Your task to perform on an android device: Go to location settings Image 0: 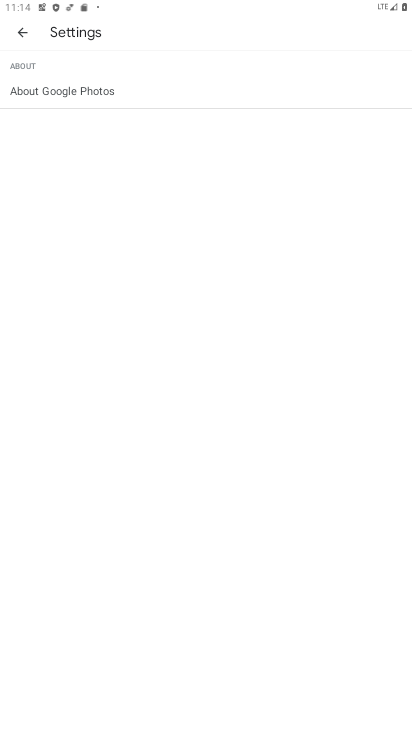
Step 0: click (20, 32)
Your task to perform on an android device: Go to location settings Image 1: 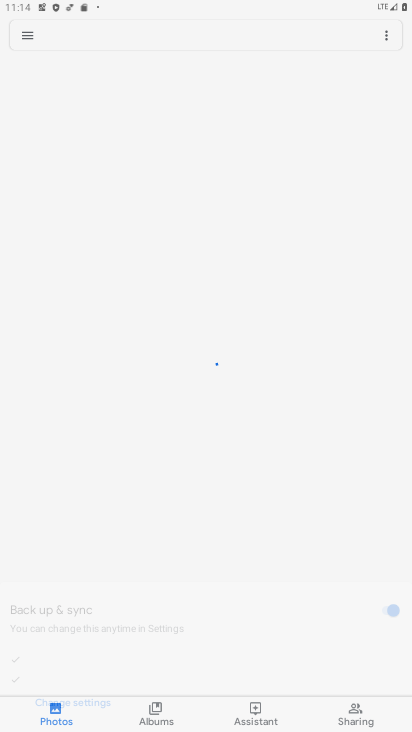
Step 1: press back button
Your task to perform on an android device: Go to location settings Image 2: 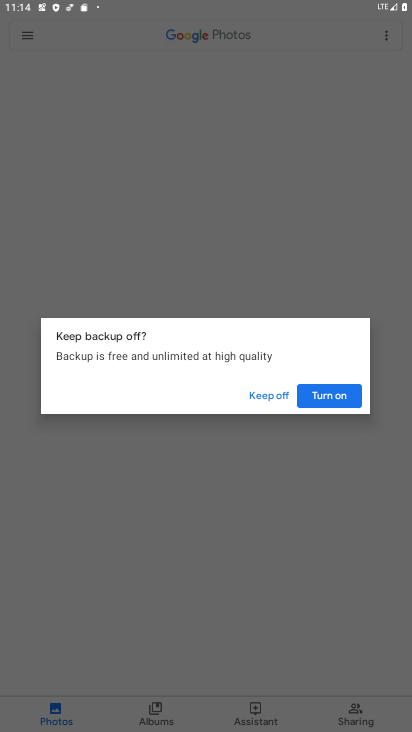
Step 2: press home button
Your task to perform on an android device: Go to location settings Image 3: 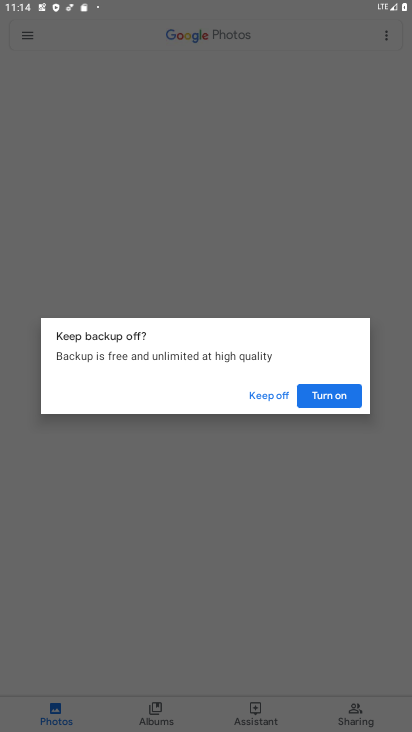
Step 3: click (255, 401)
Your task to perform on an android device: Go to location settings Image 4: 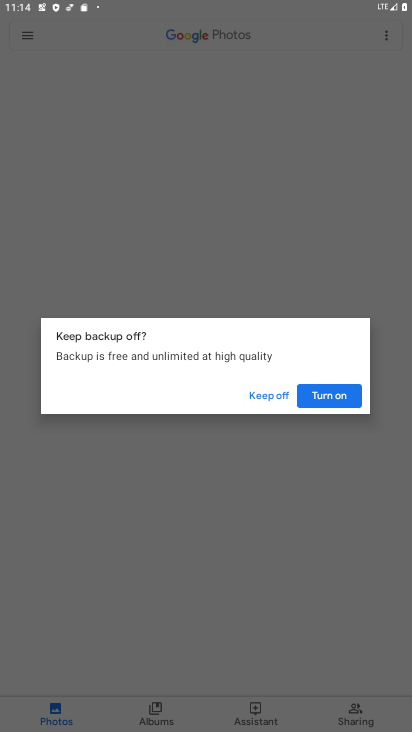
Step 4: press home button
Your task to perform on an android device: Go to location settings Image 5: 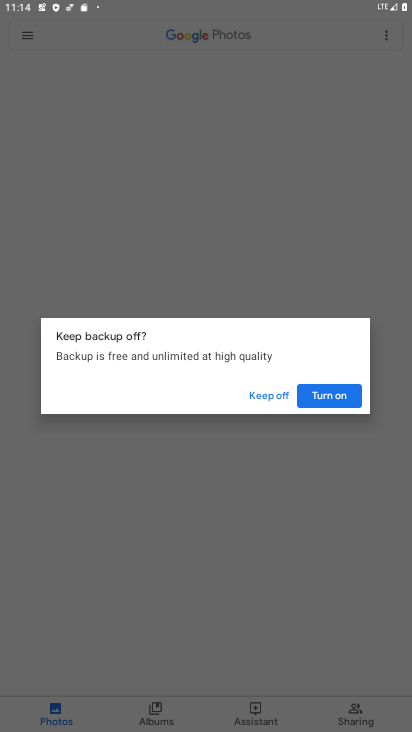
Step 5: click (255, 401)
Your task to perform on an android device: Go to location settings Image 6: 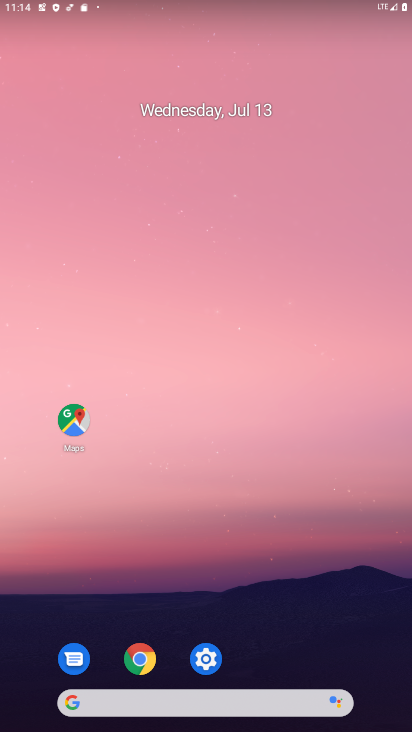
Step 6: drag from (245, 310) to (222, 157)
Your task to perform on an android device: Go to location settings Image 7: 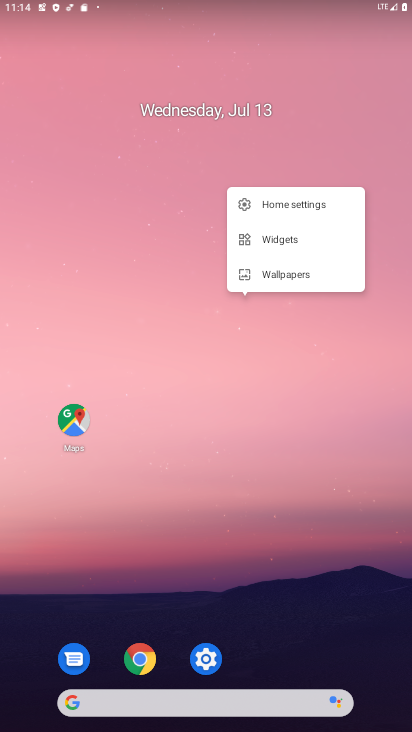
Step 7: drag from (201, 136) to (194, 103)
Your task to perform on an android device: Go to location settings Image 8: 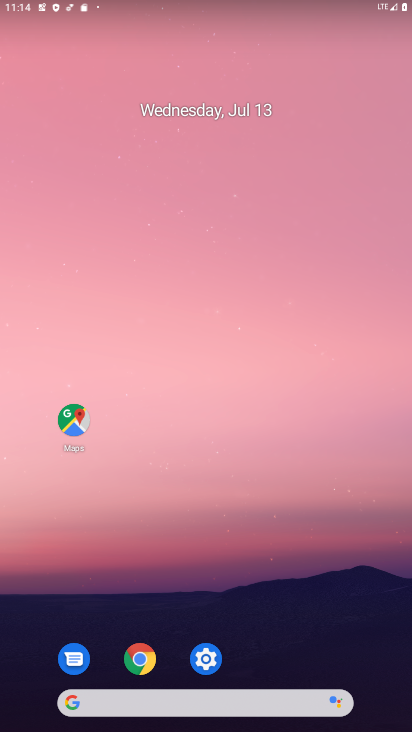
Step 8: drag from (191, 696) to (223, 183)
Your task to perform on an android device: Go to location settings Image 9: 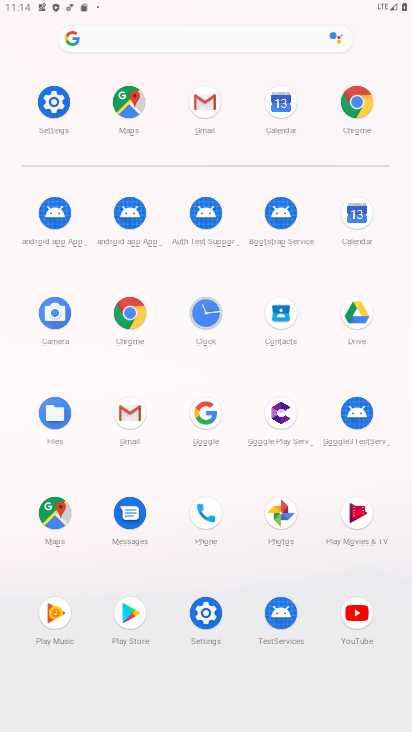
Step 9: click (211, 616)
Your task to perform on an android device: Go to location settings Image 10: 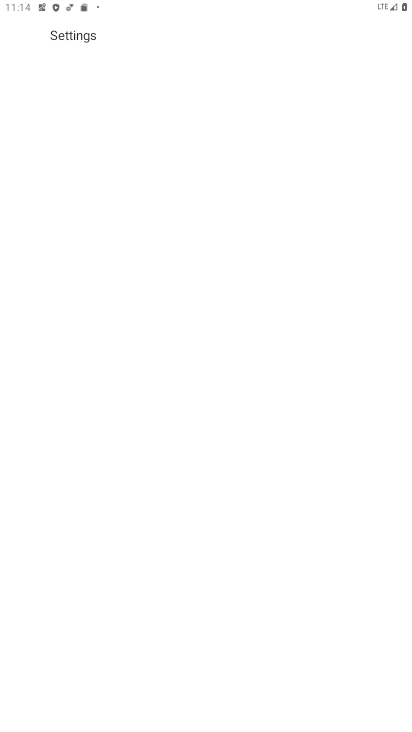
Step 10: click (211, 616)
Your task to perform on an android device: Go to location settings Image 11: 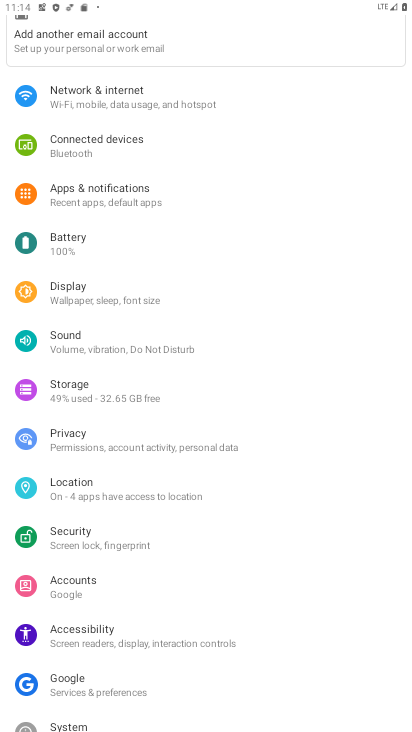
Step 11: click (93, 494)
Your task to perform on an android device: Go to location settings Image 12: 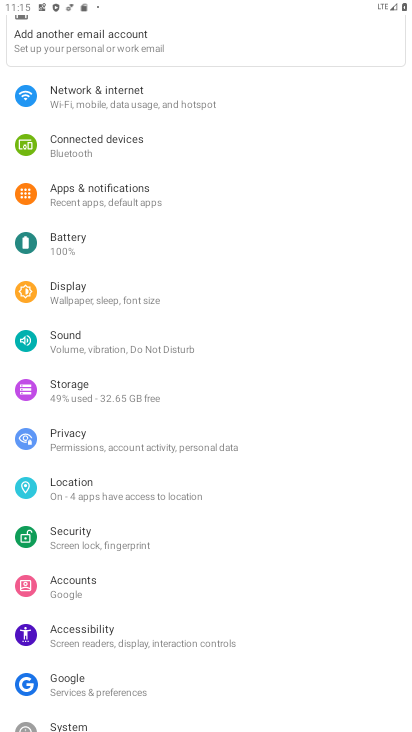
Step 12: click (84, 489)
Your task to perform on an android device: Go to location settings Image 13: 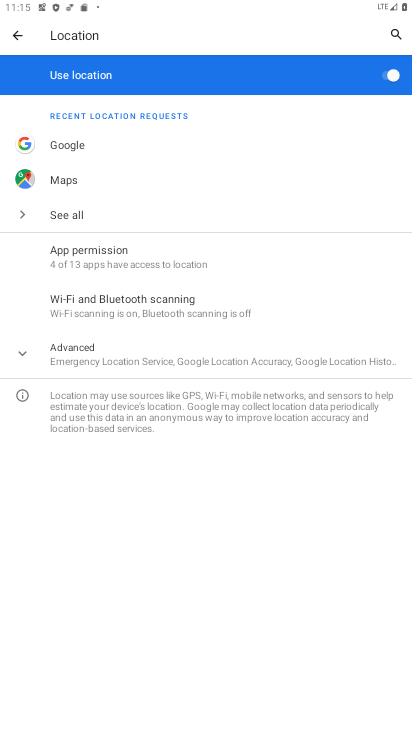
Step 13: click (96, 357)
Your task to perform on an android device: Go to location settings Image 14: 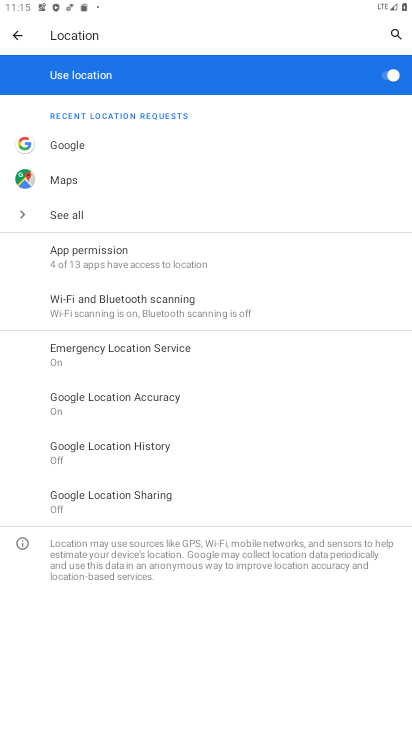
Step 14: drag from (252, 393) to (234, 85)
Your task to perform on an android device: Go to location settings Image 15: 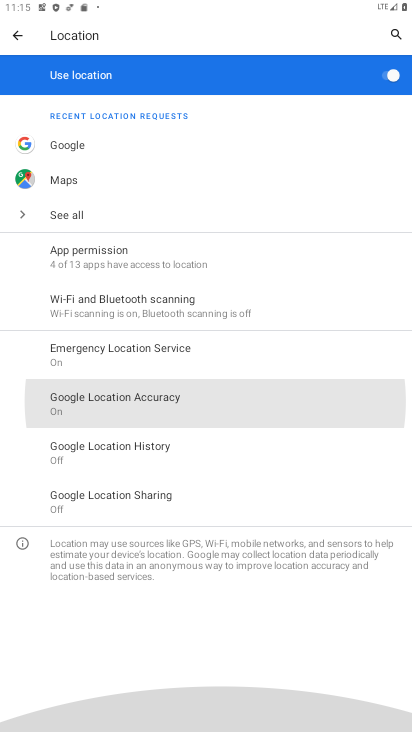
Step 15: drag from (229, 352) to (203, 115)
Your task to perform on an android device: Go to location settings Image 16: 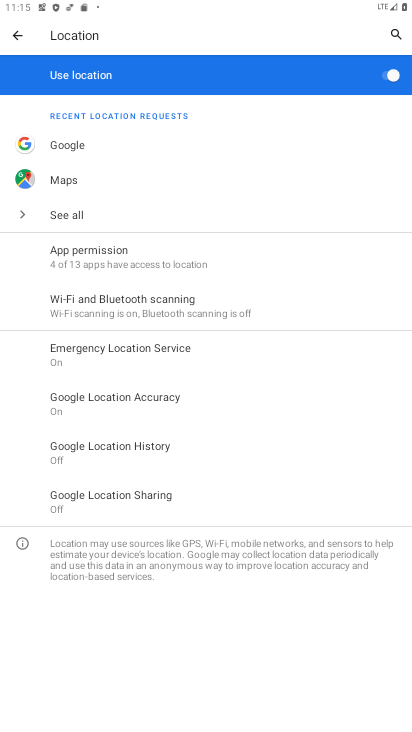
Step 16: drag from (242, 476) to (184, 177)
Your task to perform on an android device: Go to location settings Image 17: 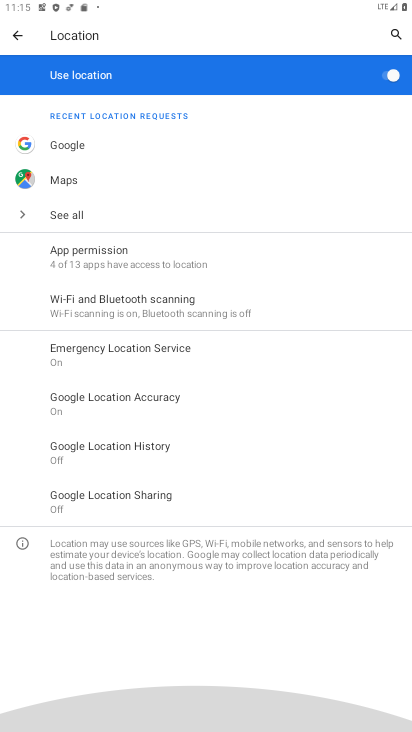
Step 17: drag from (255, 462) to (203, 114)
Your task to perform on an android device: Go to location settings Image 18: 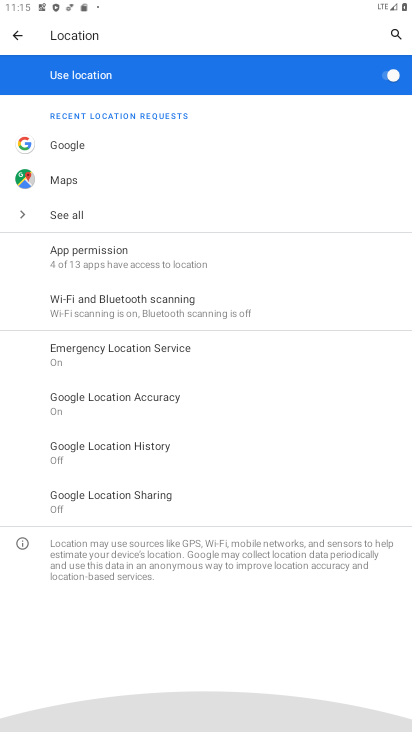
Step 18: drag from (206, 455) to (206, 76)
Your task to perform on an android device: Go to location settings Image 19: 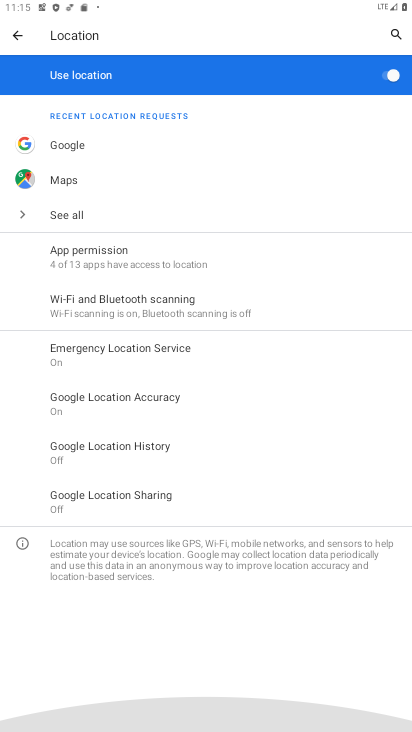
Step 19: drag from (256, 398) to (252, 146)
Your task to perform on an android device: Go to location settings Image 20: 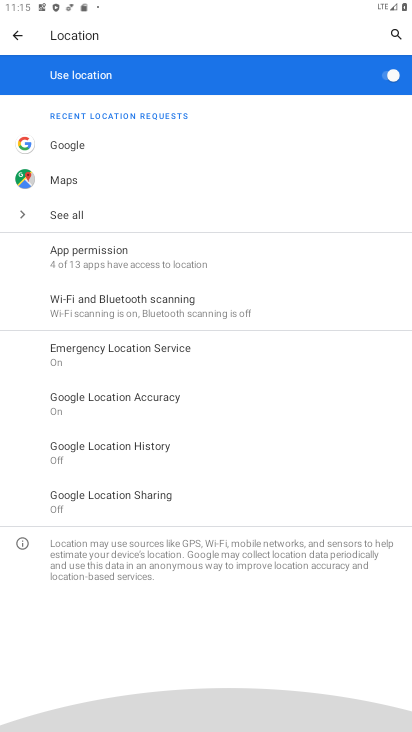
Step 20: drag from (232, 318) to (214, 33)
Your task to perform on an android device: Go to location settings Image 21: 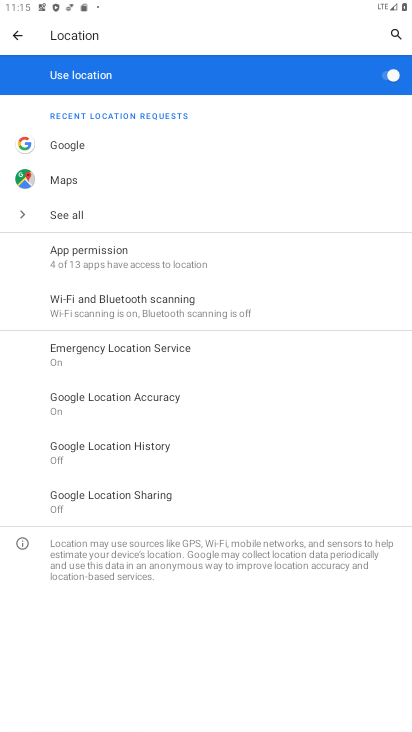
Step 21: drag from (239, 548) to (239, 22)
Your task to perform on an android device: Go to location settings Image 22: 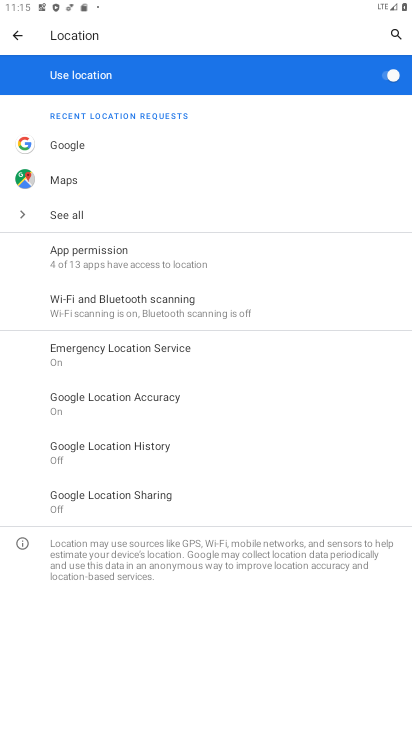
Step 22: click (198, 103)
Your task to perform on an android device: Go to location settings Image 23: 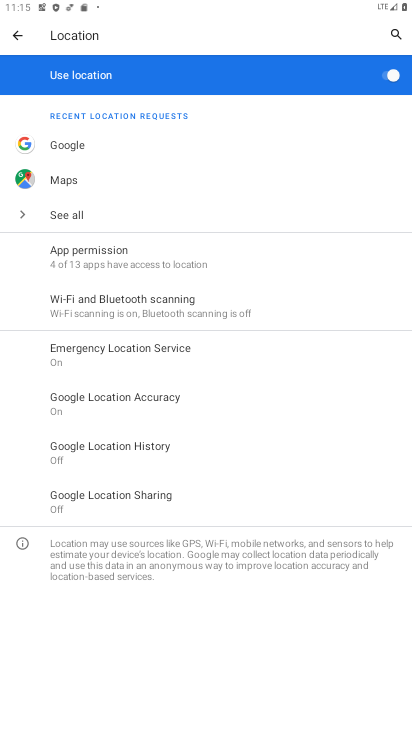
Step 23: drag from (251, 3) to (212, 107)
Your task to perform on an android device: Go to location settings Image 24: 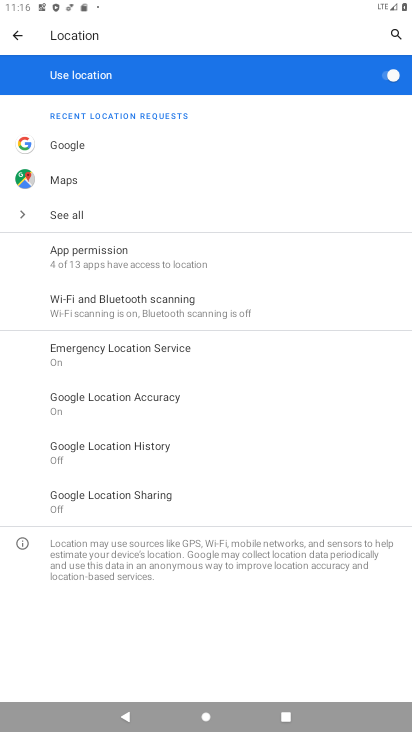
Step 24: click (220, 432)
Your task to perform on an android device: Go to location settings Image 25: 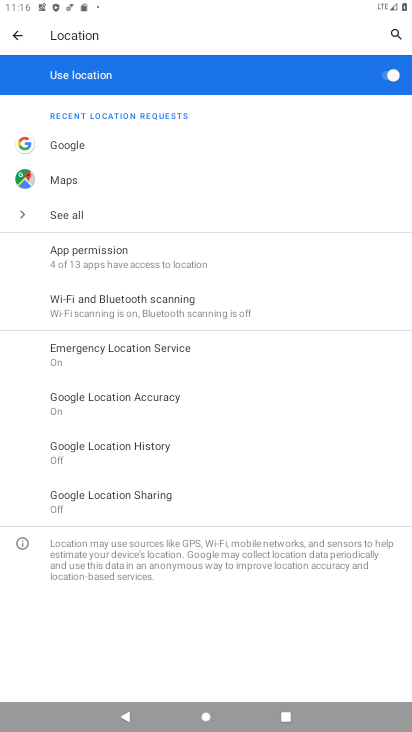
Step 25: click (220, 432)
Your task to perform on an android device: Go to location settings Image 26: 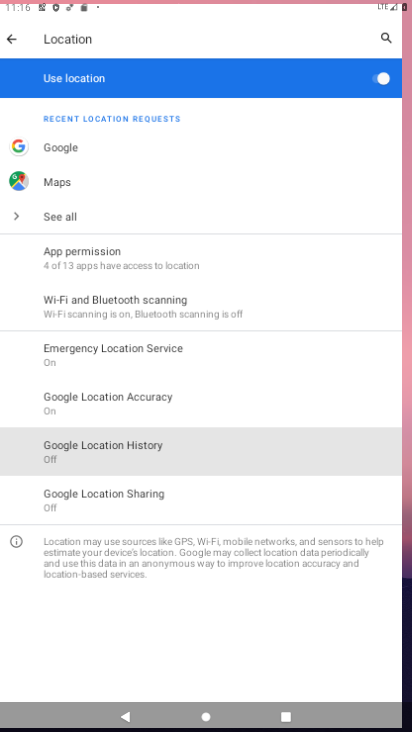
Step 26: click (220, 432)
Your task to perform on an android device: Go to location settings Image 27: 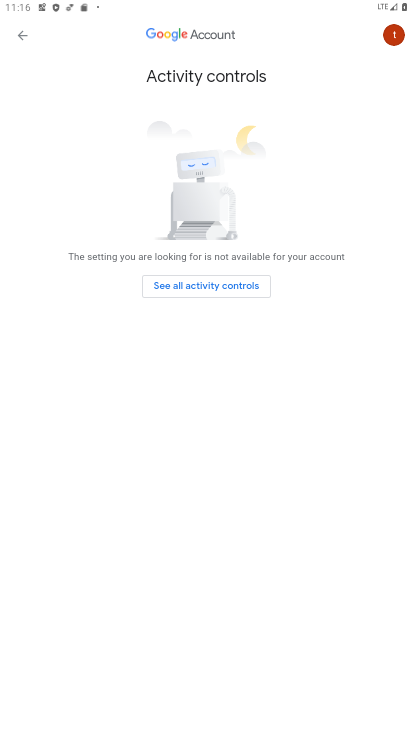
Step 27: click (17, 27)
Your task to perform on an android device: Go to location settings Image 28: 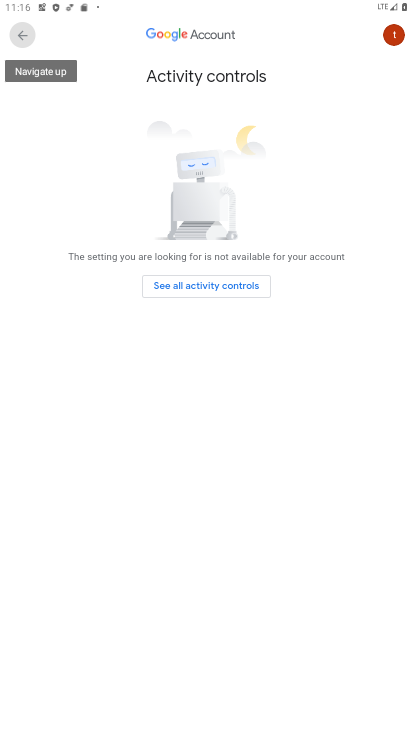
Step 28: click (17, 28)
Your task to perform on an android device: Go to location settings Image 29: 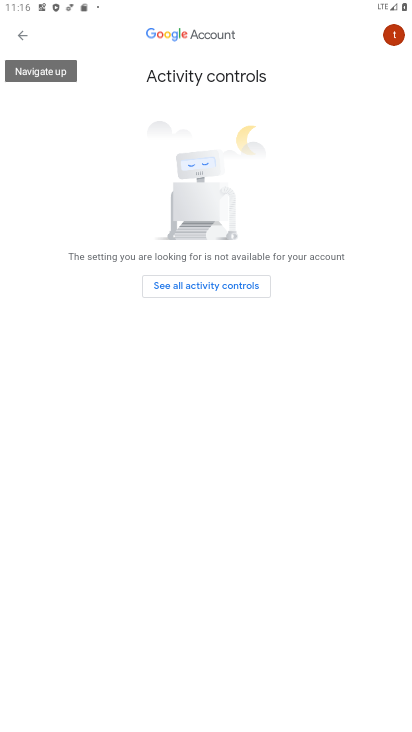
Step 29: click (18, 30)
Your task to perform on an android device: Go to location settings Image 30: 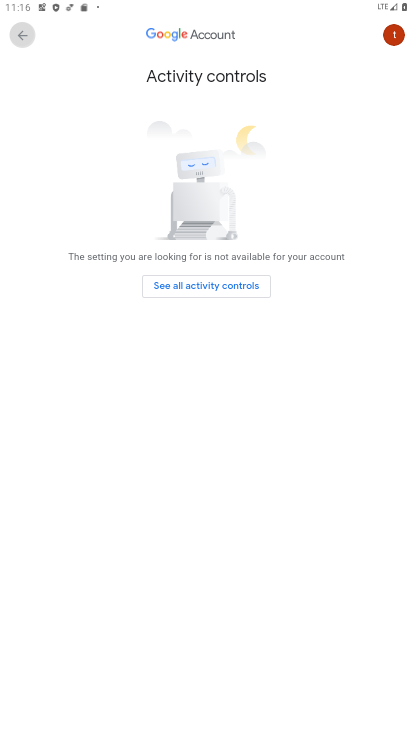
Step 30: click (19, 32)
Your task to perform on an android device: Go to location settings Image 31: 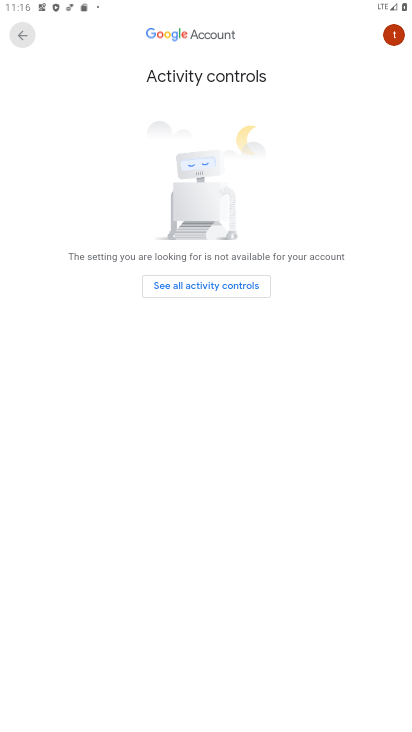
Step 31: click (19, 32)
Your task to perform on an android device: Go to location settings Image 32: 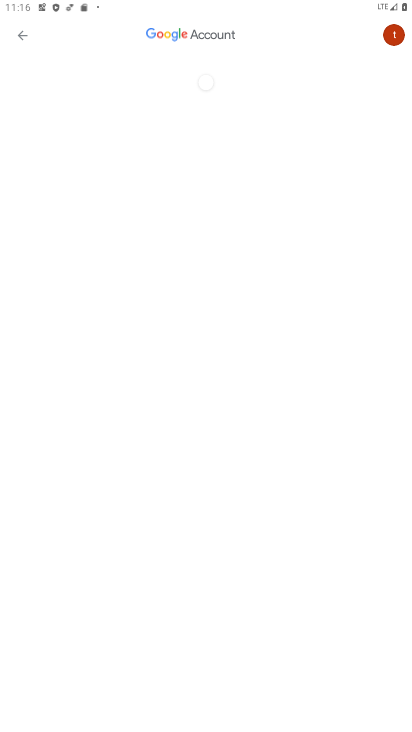
Step 32: click (19, 32)
Your task to perform on an android device: Go to location settings Image 33: 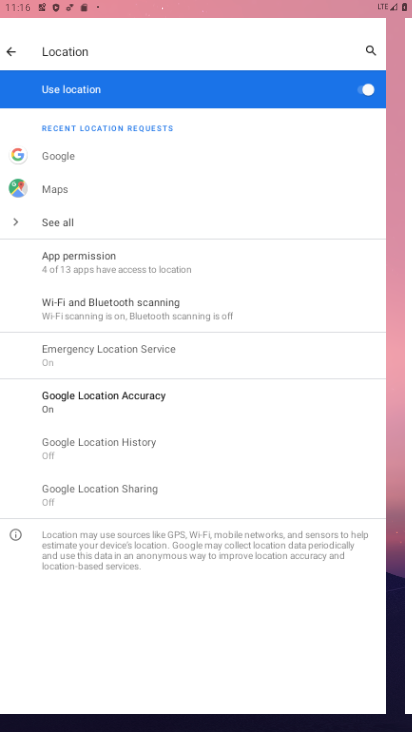
Step 33: click (19, 32)
Your task to perform on an android device: Go to location settings Image 34: 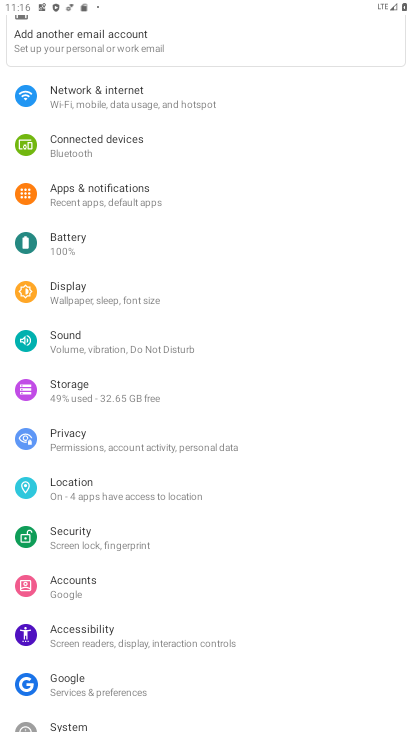
Step 34: click (73, 474)
Your task to perform on an android device: Go to location settings Image 35: 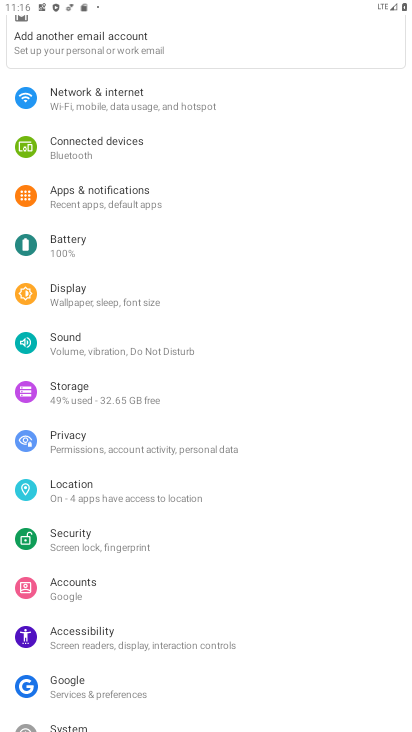
Step 35: click (77, 483)
Your task to perform on an android device: Go to location settings Image 36: 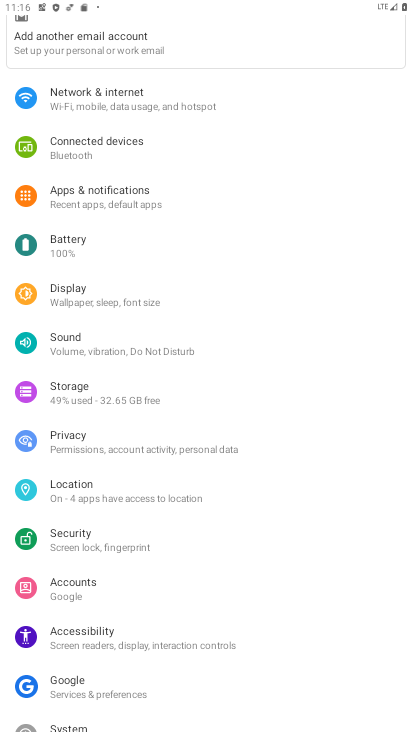
Step 36: click (77, 483)
Your task to perform on an android device: Go to location settings Image 37: 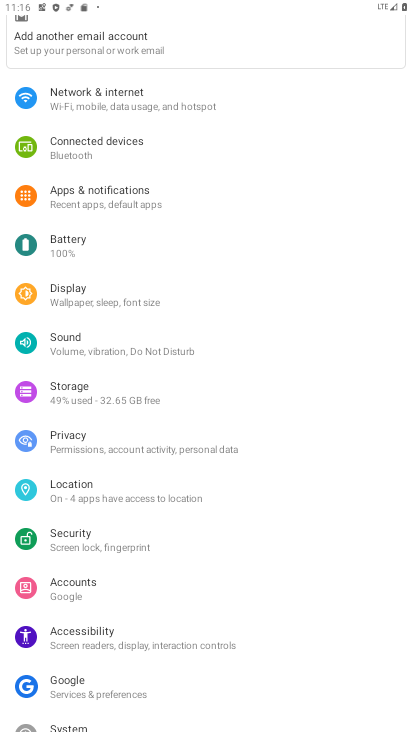
Step 37: click (79, 484)
Your task to perform on an android device: Go to location settings Image 38: 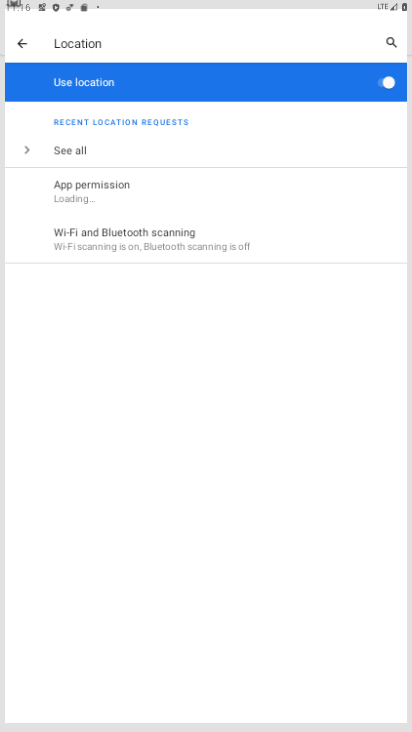
Step 38: click (79, 484)
Your task to perform on an android device: Go to location settings Image 39: 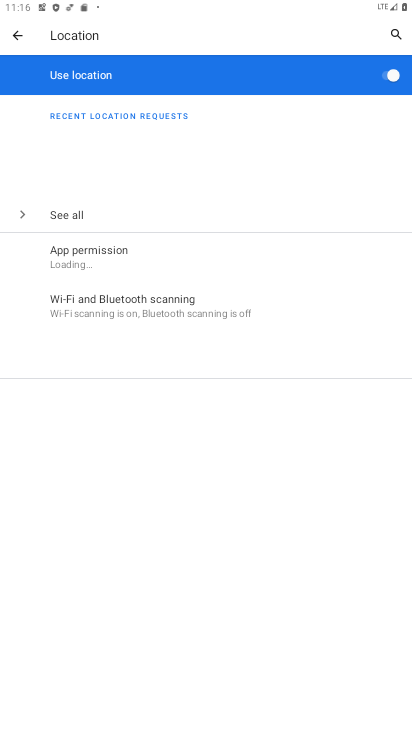
Step 39: click (83, 484)
Your task to perform on an android device: Go to location settings Image 40: 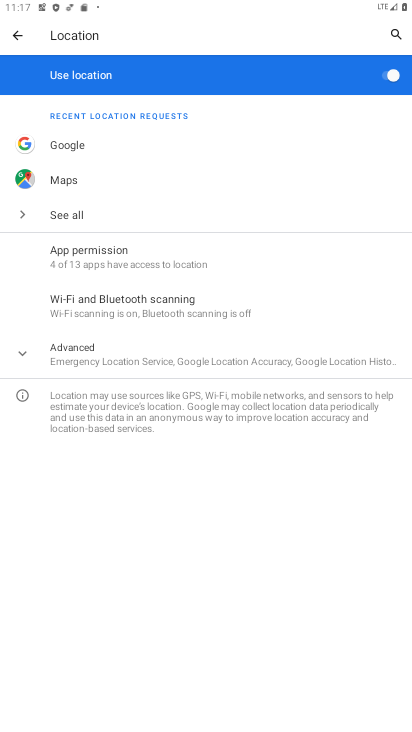
Step 40: task complete